Your task to perform on an android device: Go to privacy settings Image 0: 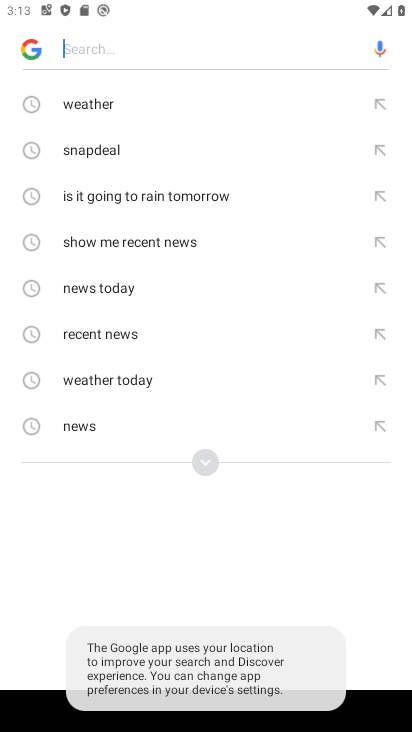
Step 0: press home button
Your task to perform on an android device: Go to privacy settings Image 1: 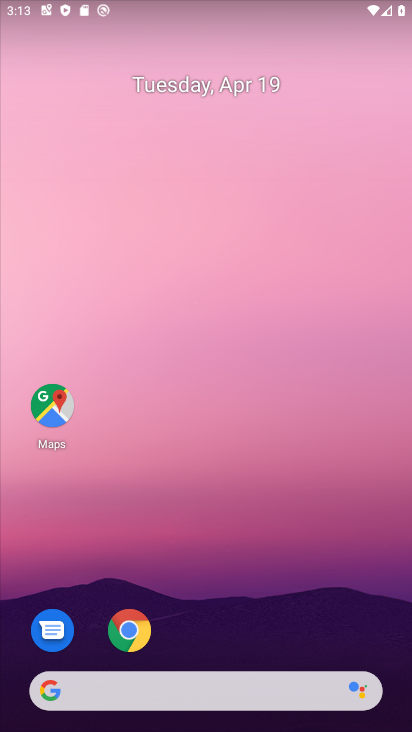
Step 1: drag from (249, 600) to (212, 100)
Your task to perform on an android device: Go to privacy settings Image 2: 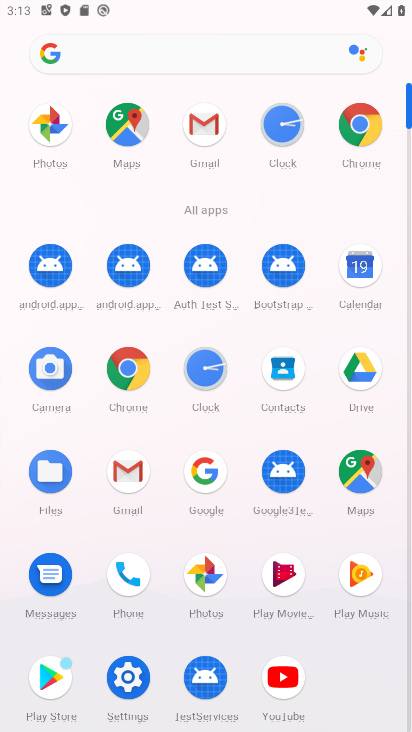
Step 2: click (131, 684)
Your task to perform on an android device: Go to privacy settings Image 3: 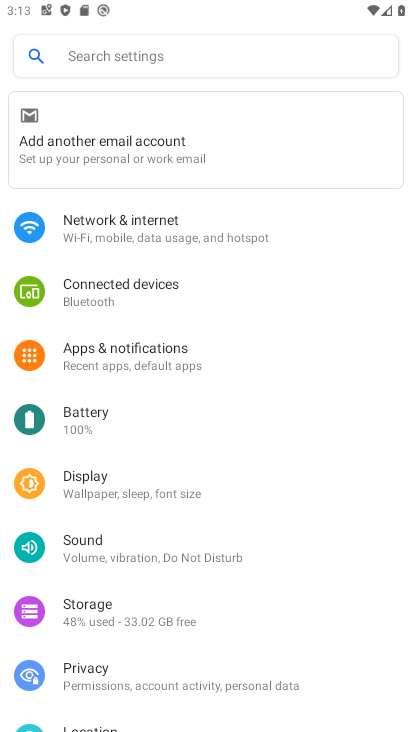
Step 3: drag from (227, 543) to (224, 213)
Your task to perform on an android device: Go to privacy settings Image 4: 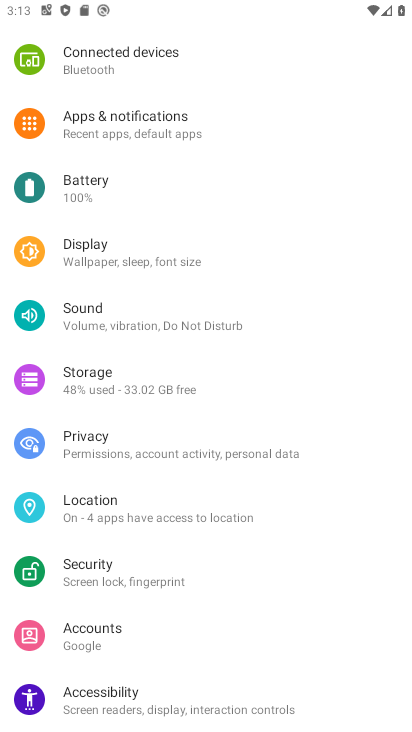
Step 4: click (157, 446)
Your task to perform on an android device: Go to privacy settings Image 5: 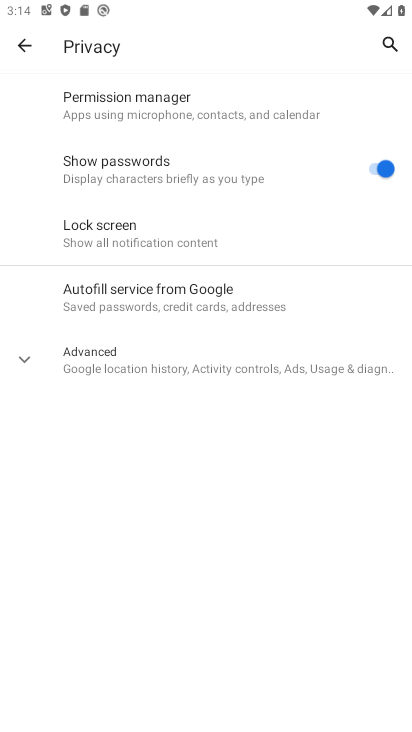
Step 5: task complete